Your task to perform on an android device: check out phone information Image 0: 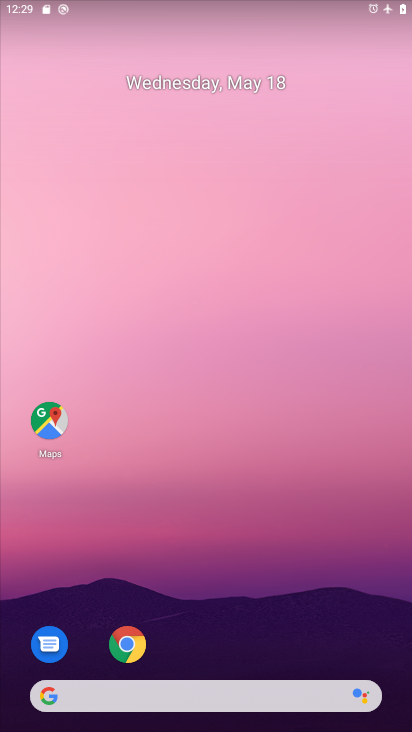
Step 0: drag from (207, 647) to (222, 203)
Your task to perform on an android device: check out phone information Image 1: 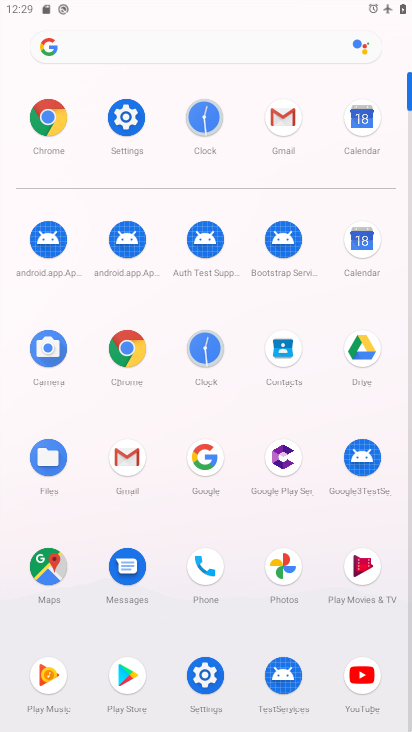
Step 1: click (201, 670)
Your task to perform on an android device: check out phone information Image 2: 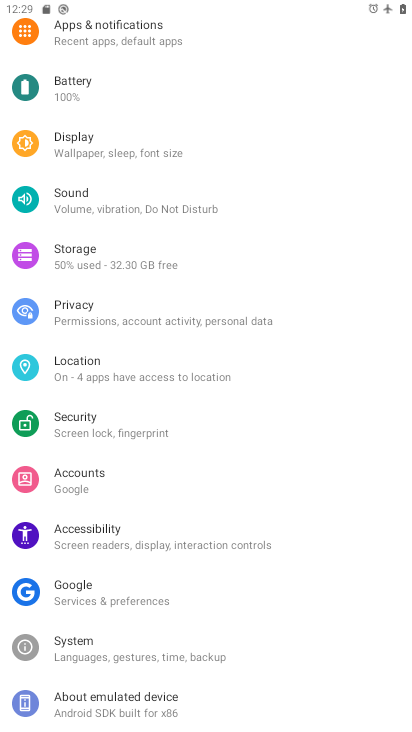
Step 2: drag from (177, 658) to (188, 242)
Your task to perform on an android device: check out phone information Image 3: 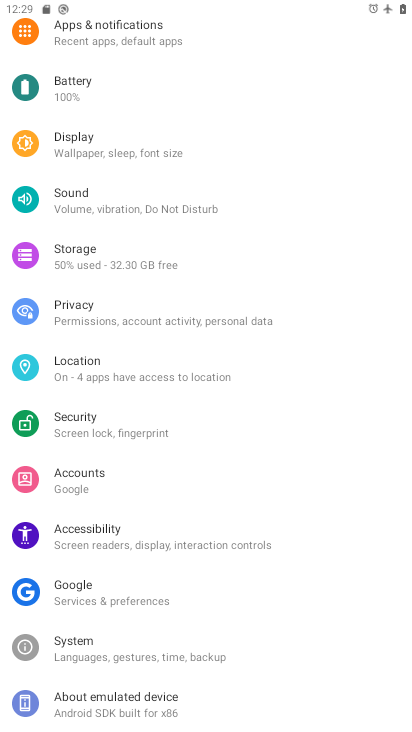
Step 3: click (158, 698)
Your task to perform on an android device: check out phone information Image 4: 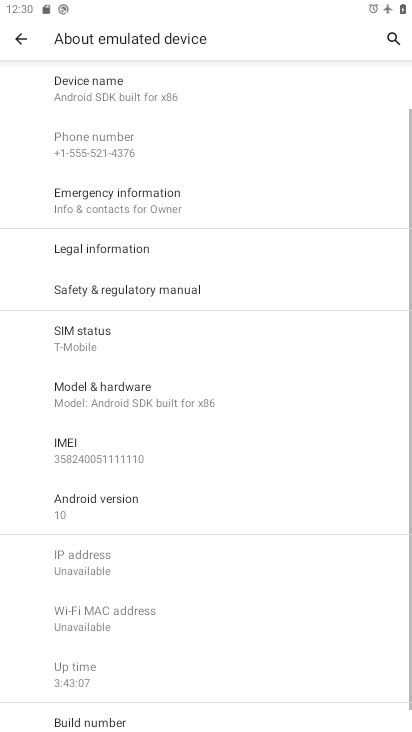
Step 4: task complete